Your task to perform on an android device: toggle javascript in the chrome app Image 0: 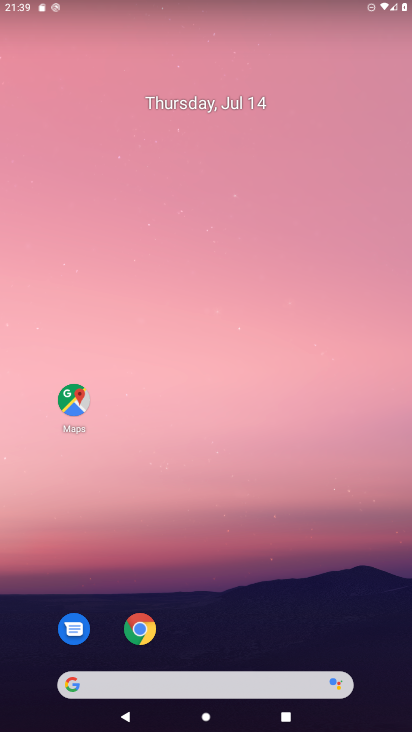
Step 0: drag from (236, 550) to (222, 134)
Your task to perform on an android device: toggle javascript in the chrome app Image 1: 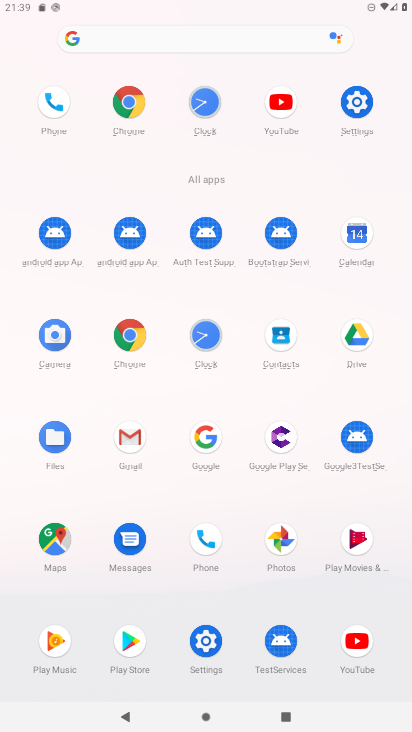
Step 1: click (135, 94)
Your task to perform on an android device: toggle javascript in the chrome app Image 2: 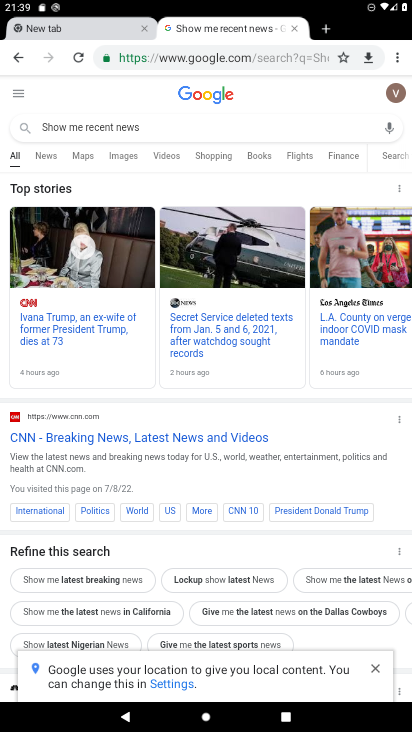
Step 2: click (400, 51)
Your task to perform on an android device: toggle javascript in the chrome app Image 3: 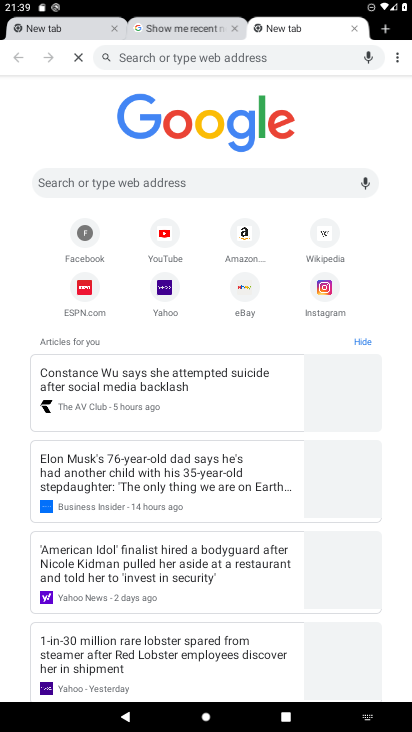
Step 3: click (400, 51)
Your task to perform on an android device: toggle javascript in the chrome app Image 4: 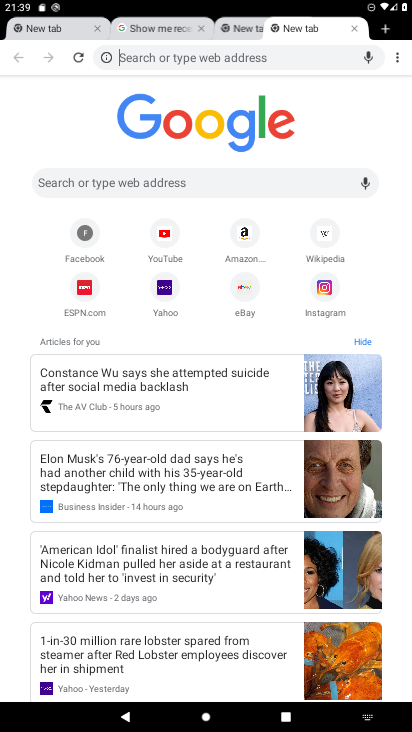
Step 4: click (403, 49)
Your task to perform on an android device: toggle javascript in the chrome app Image 5: 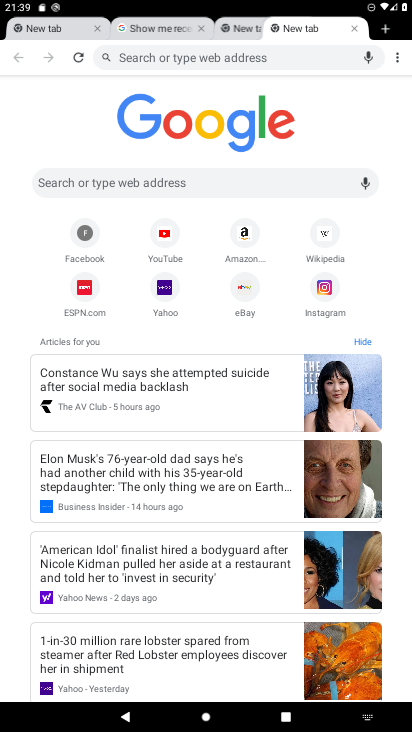
Step 5: click (402, 54)
Your task to perform on an android device: toggle javascript in the chrome app Image 6: 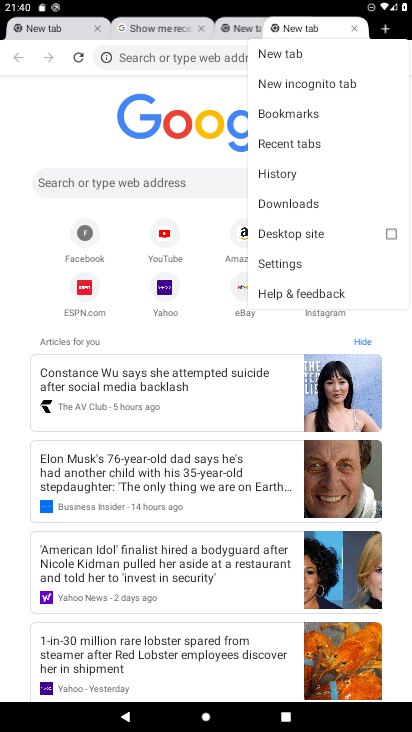
Step 6: click (283, 261)
Your task to perform on an android device: toggle javascript in the chrome app Image 7: 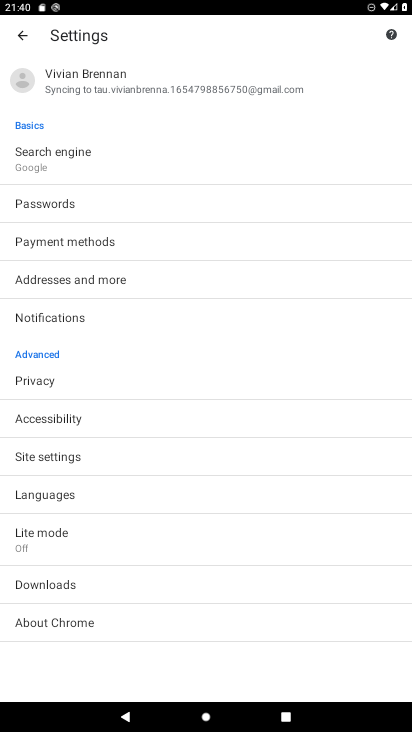
Step 7: click (96, 449)
Your task to perform on an android device: toggle javascript in the chrome app Image 8: 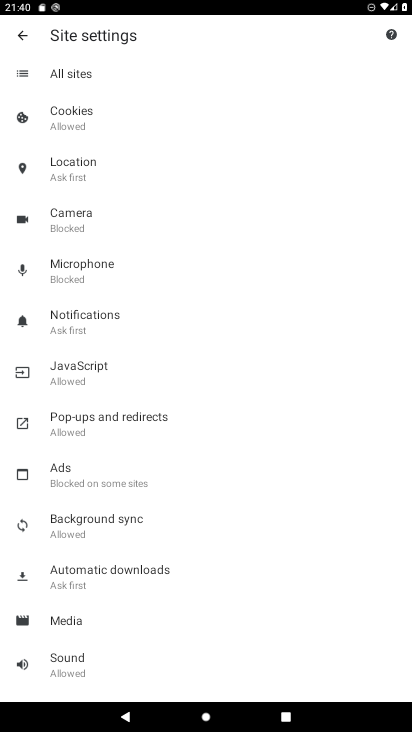
Step 8: click (114, 419)
Your task to perform on an android device: toggle javascript in the chrome app Image 9: 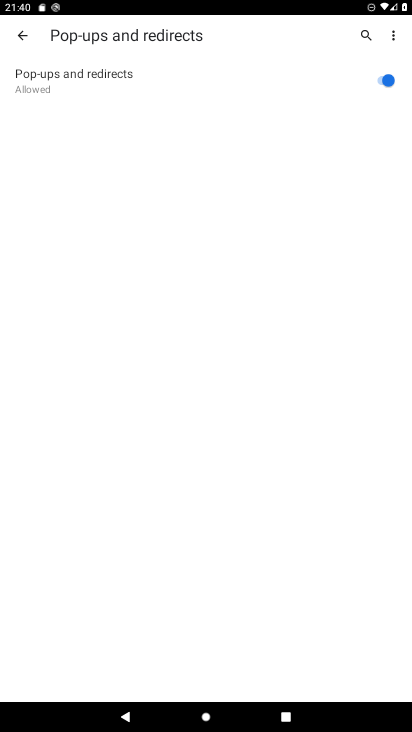
Step 9: click (376, 83)
Your task to perform on an android device: toggle javascript in the chrome app Image 10: 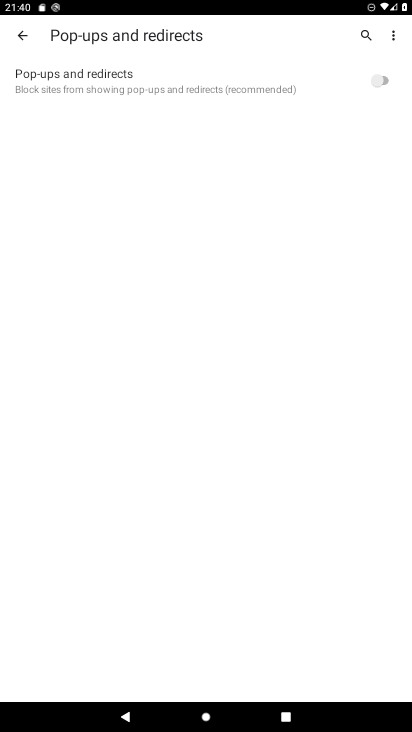
Step 10: task complete